Your task to perform on an android device: Open Amazon Image 0: 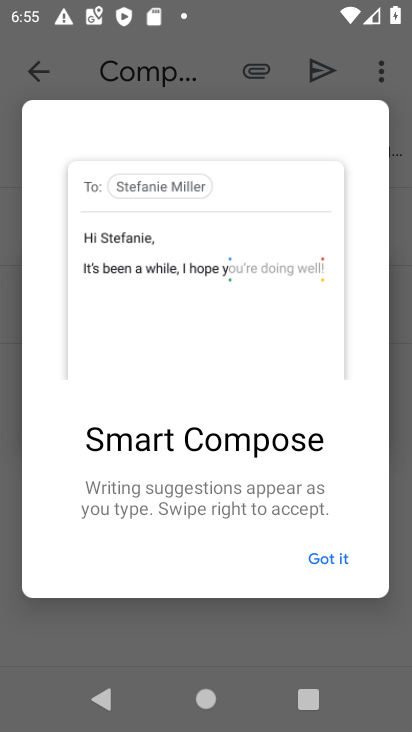
Step 0: press home button
Your task to perform on an android device: Open Amazon Image 1: 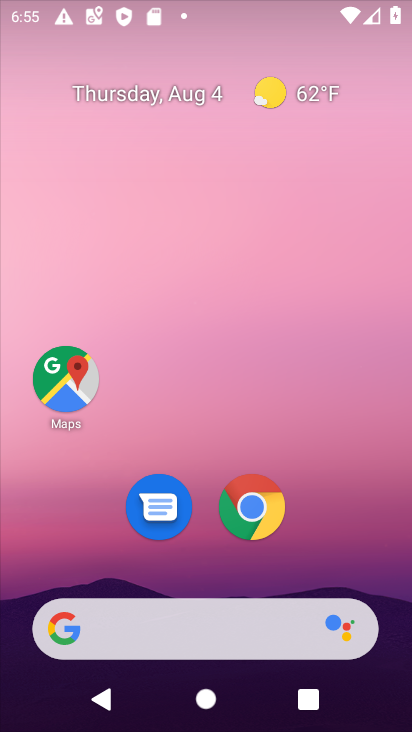
Step 1: drag from (363, 468) to (218, 2)
Your task to perform on an android device: Open Amazon Image 2: 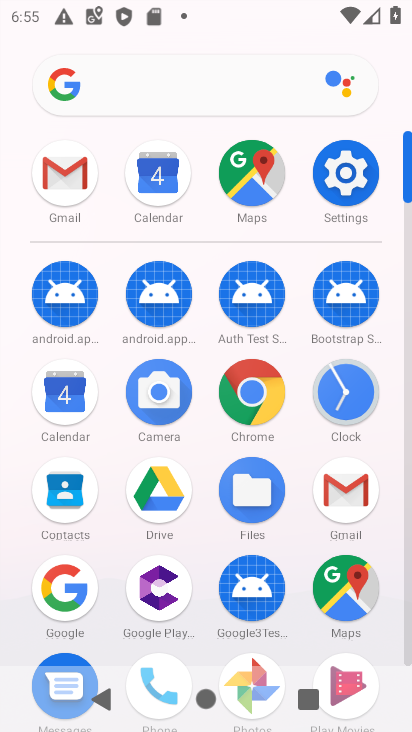
Step 2: click (62, 593)
Your task to perform on an android device: Open Amazon Image 3: 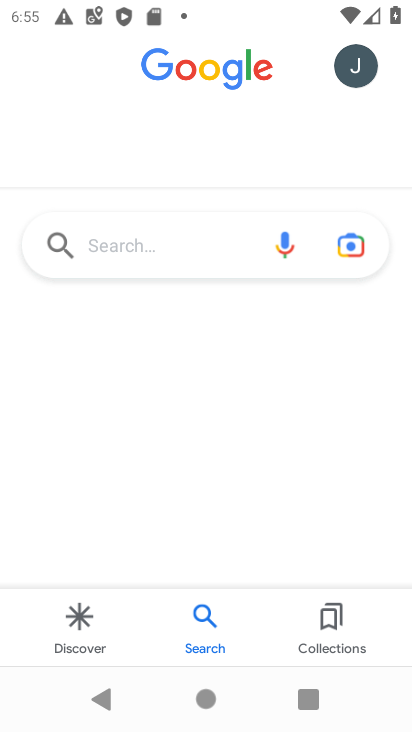
Step 3: click (129, 251)
Your task to perform on an android device: Open Amazon Image 4: 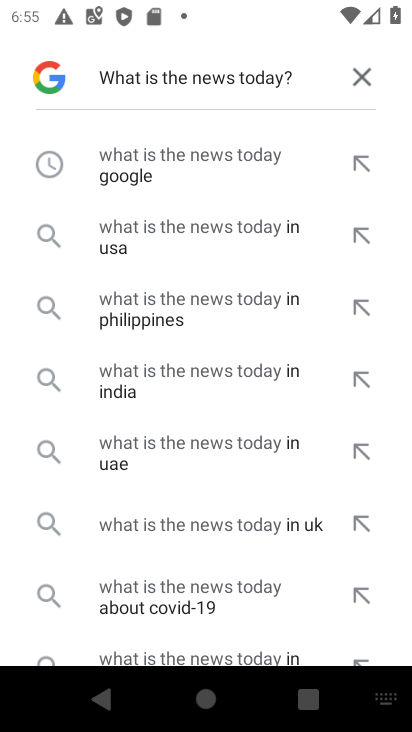
Step 4: click (366, 82)
Your task to perform on an android device: Open Amazon Image 5: 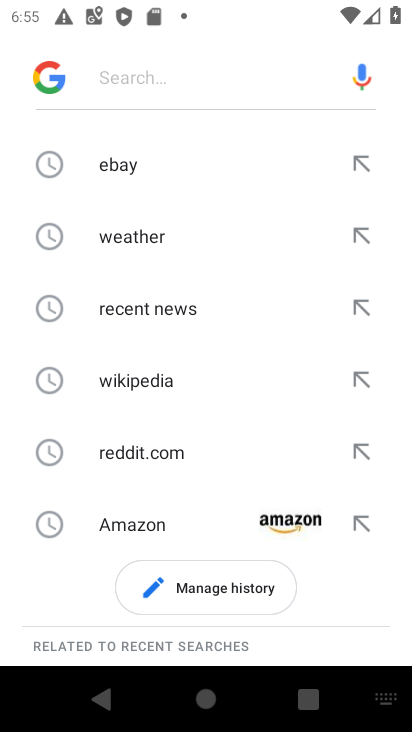
Step 5: click (147, 516)
Your task to perform on an android device: Open Amazon Image 6: 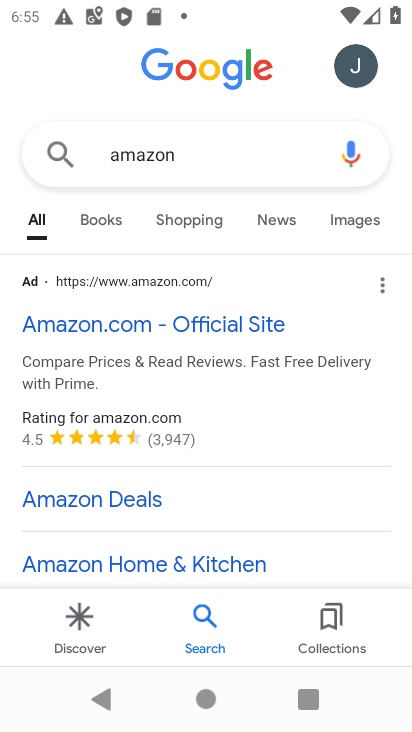
Step 6: task complete